Your task to perform on an android device: turn off picture-in-picture Image 0: 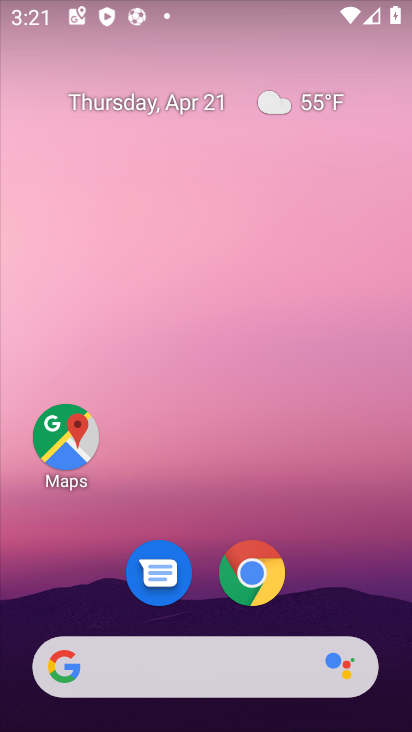
Step 0: drag from (367, 609) to (328, 316)
Your task to perform on an android device: turn off picture-in-picture Image 1: 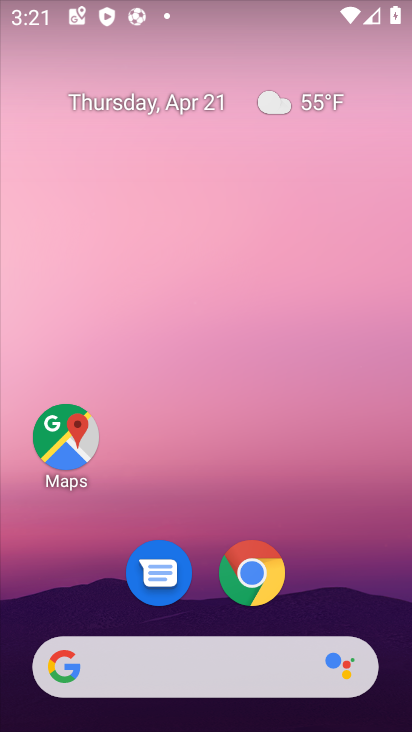
Step 1: drag from (358, 608) to (295, 149)
Your task to perform on an android device: turn off picture-in-picture Image 2: 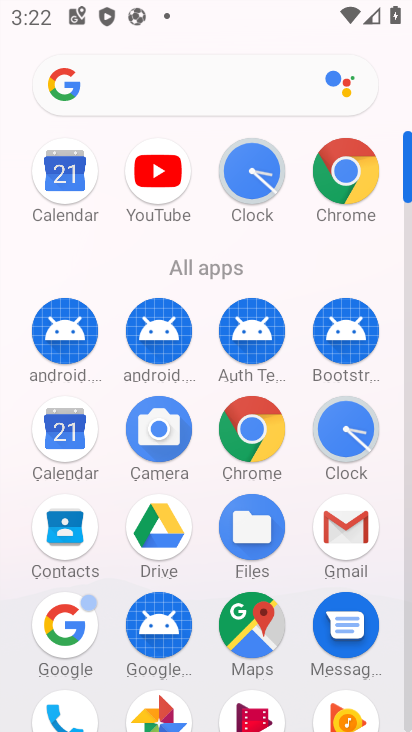
Step 2: click (405, 692)
Your task to perform on an android device: turn off picture-in-picture Image 3: 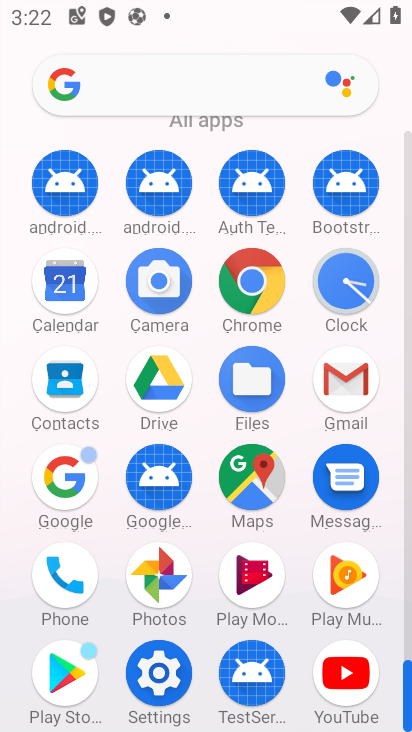
Step 3: click (158, 671)
Your task to perform on an android device: turn off picture-in-picture Image 4: 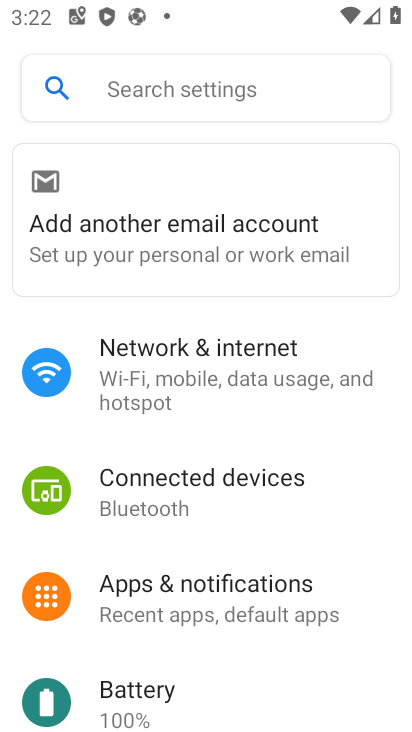
Step 4: click (177, 598)
Your task to perform on an android device: turn off picture-in-picture Image 5: 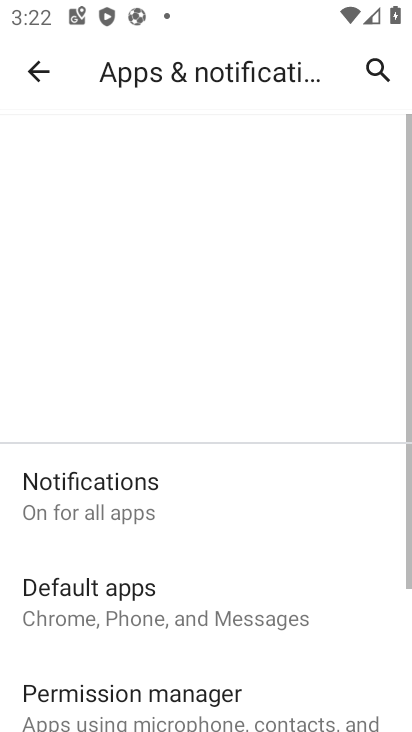
Step 5: drag from (322, 613) to (309, 308)
Your task to perform on an android device: turn off picture-in-picture Image 6: 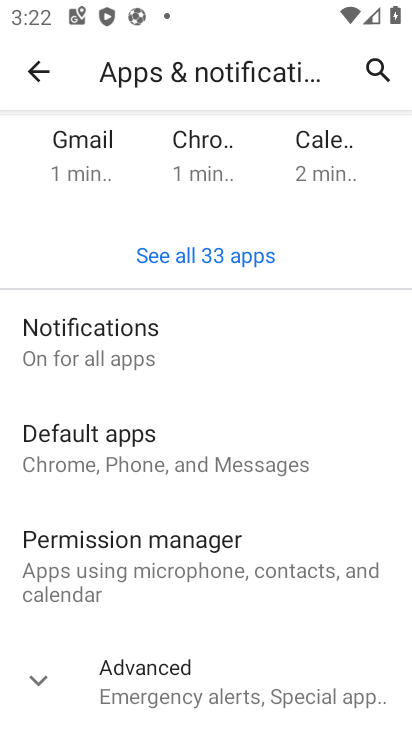
Step 6: click (33, 678)
Your task to perform on an android device: turn off picture-in-picture Image 7: 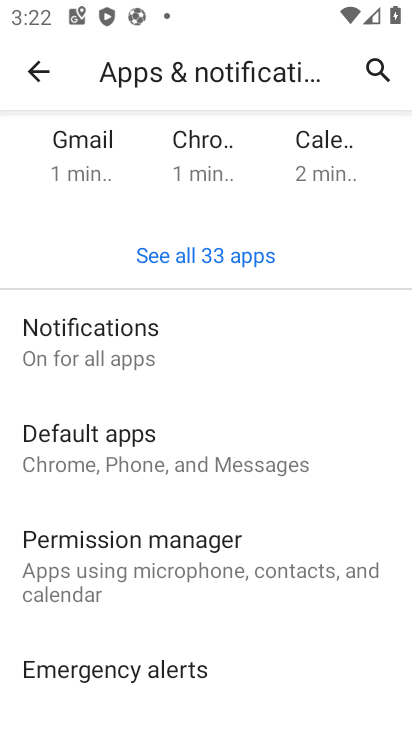
Step 7: drag from (287, 656) to (345, 353)
Your task to perform on an android device: turn off picture-in-picture Image 8: 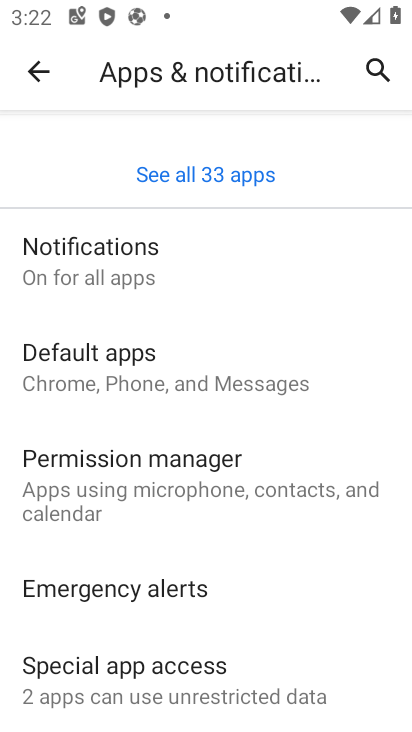
Step 8: click (110, 686)
Your task to perform on an android device: turn off picture-in-picture Image 9: 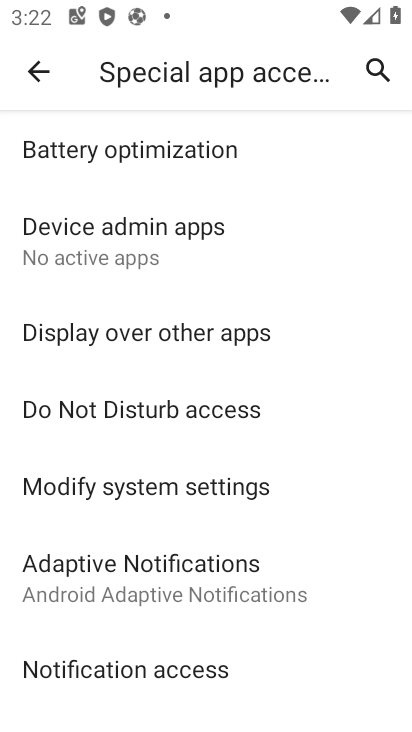
Step 9: drag from (310, 566) to (304, 303)
Your task to perform on an android device: turn off picture-in-picture Image 10: 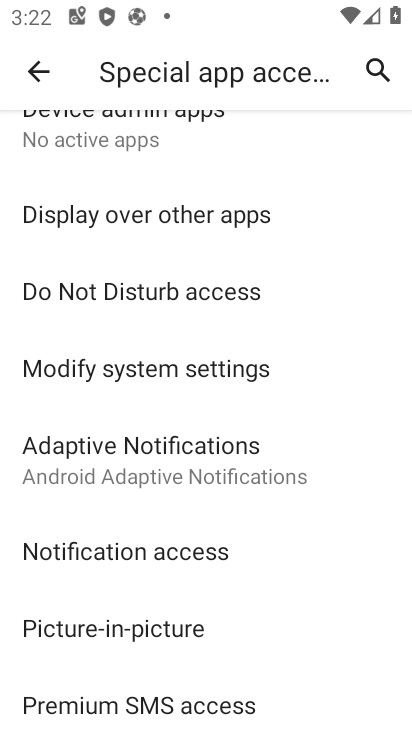
Step 10: click (80, 629)
Your task to perform on an android device: turn off picture-in-picture Image 11: 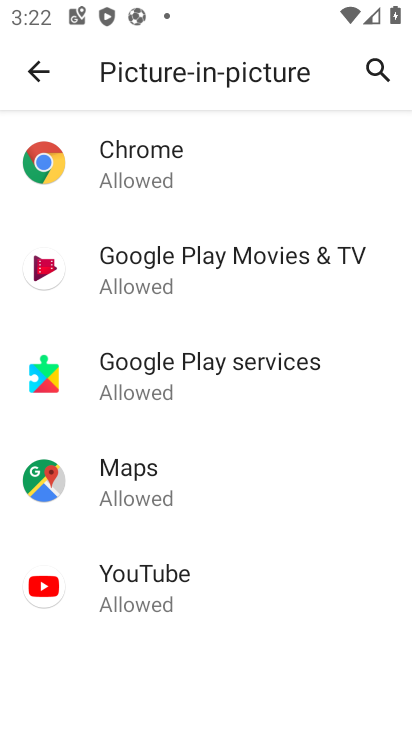
Step 11: click (156, 592)
Your task to perform on an android device: turn off picture-in-picture Image 12: 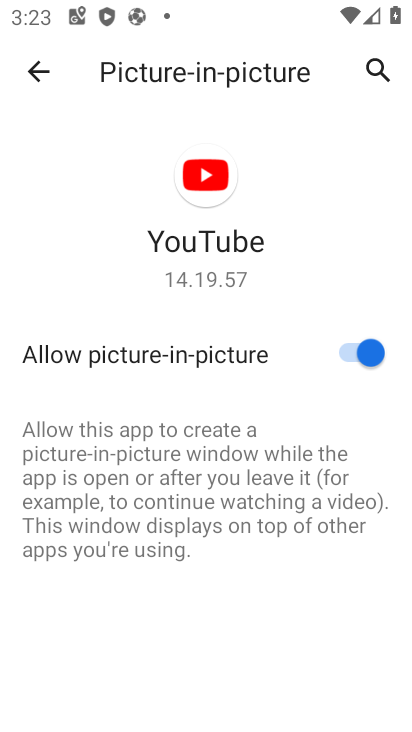
Step 12: click (346, 351)
Your task to perform on an android device: turn off picture-in-picture Image 13: 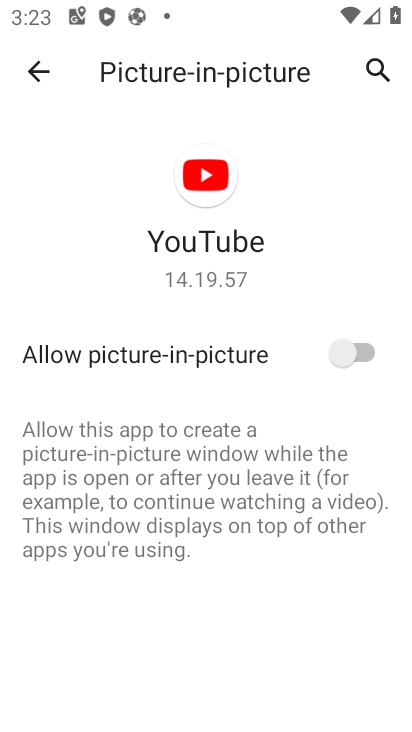
Step 13: task complete